Your task to perform on an android device: Go to ESPN.com Image 0: 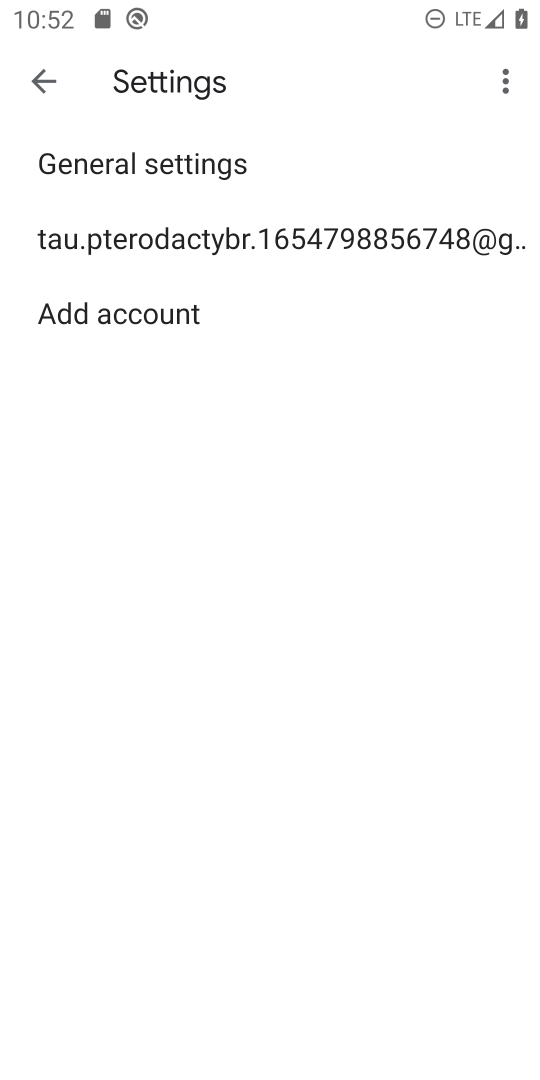
Step 0: press home button
Your task to perform on an android device: Go to ESPN.com Image 1: 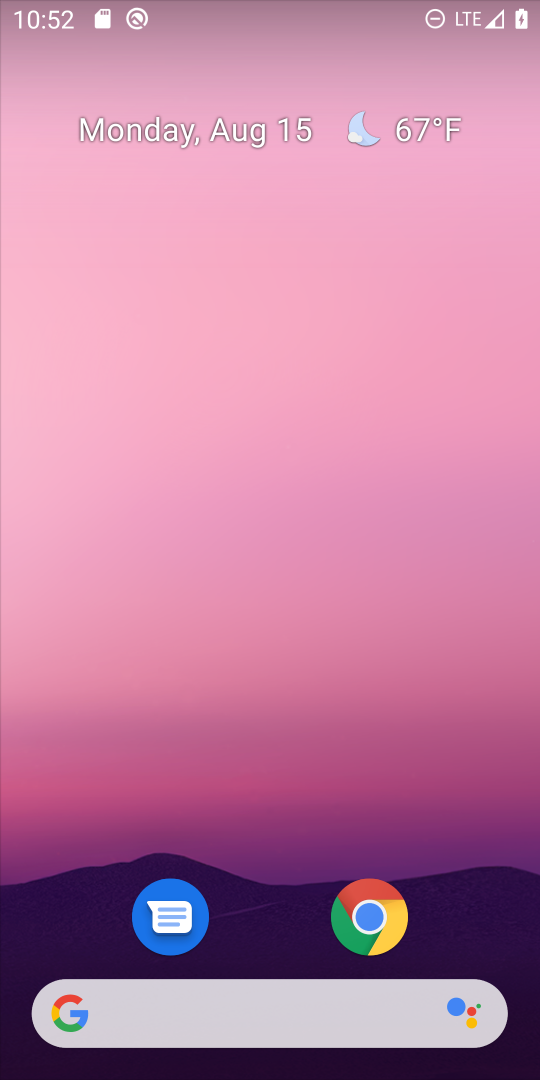
Step 1: click (310, 1012)
Your task to perform on an android device: Go to ESPN.com Image 2: 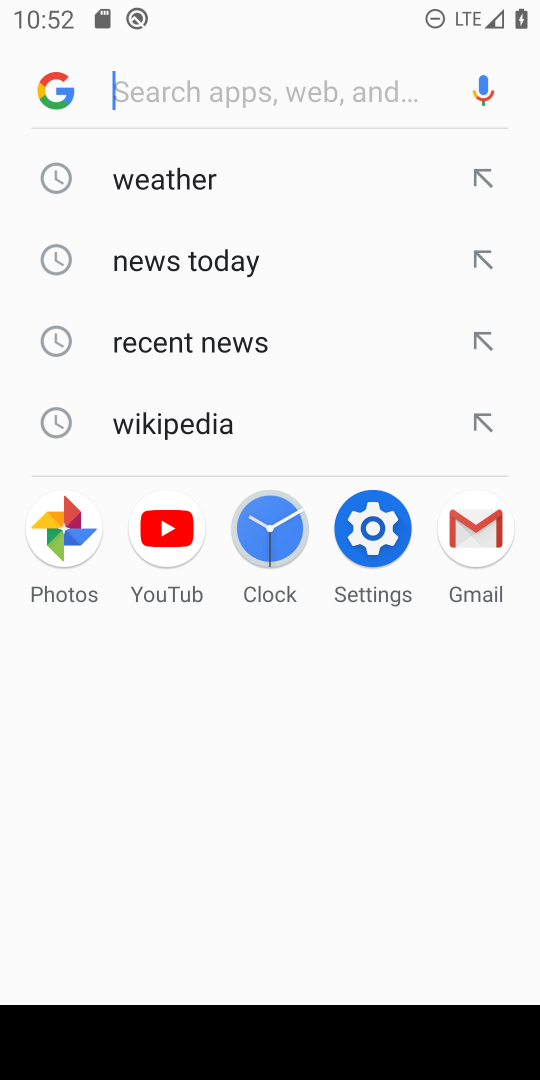
Step 2: type "espn.com"
Your task to perform on an android device: Go to ESPN.com Image 3: 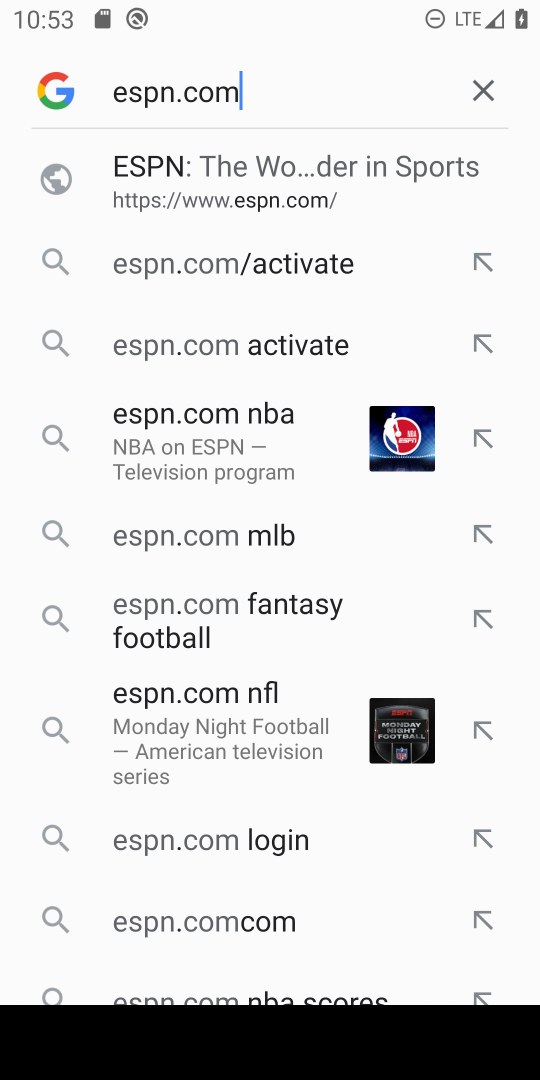
Step 3: click (326, 184)
Your task to perform on an android device: Go to ESPN.com Image 4: 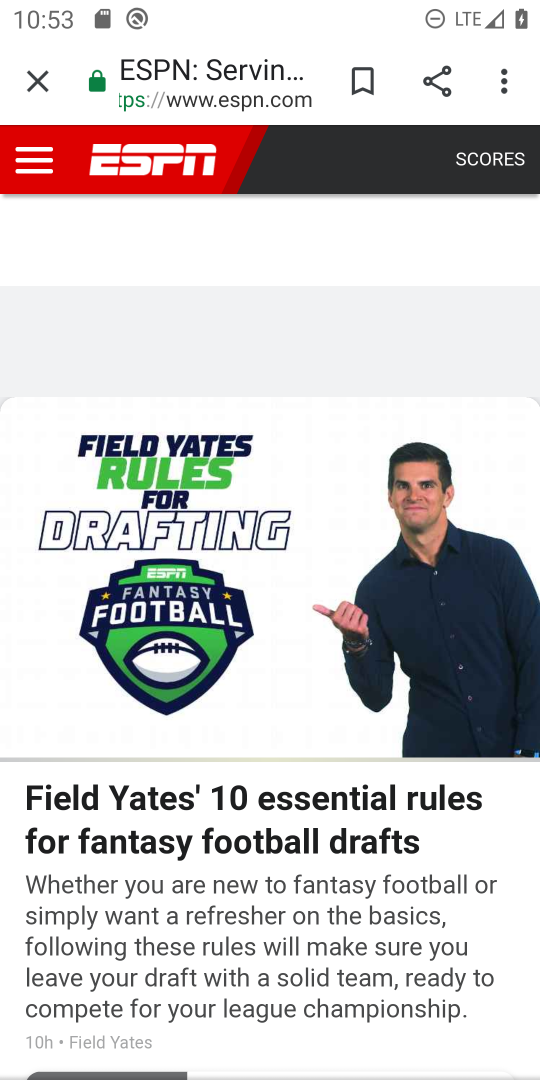
Step 4: task complete